Your task to perform on an android device: turn off airplane mode Image 0: 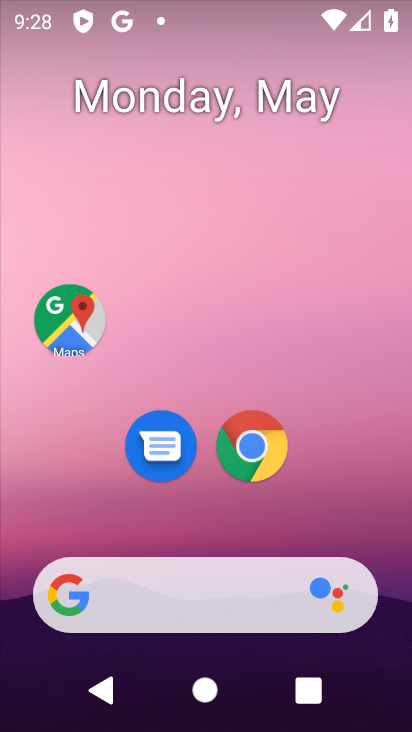
Step 0: drag from (127, 437) to (183, 179)
Your task to perform on an android device: turn off airplane mode Image 1: 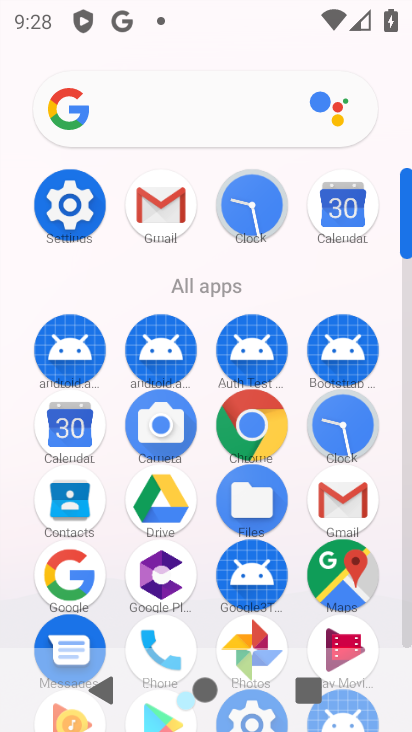
Step 1: drag from (173, 556) to (244, 289)
Your task to perform on an android device: turn off airplane mode Image 2: 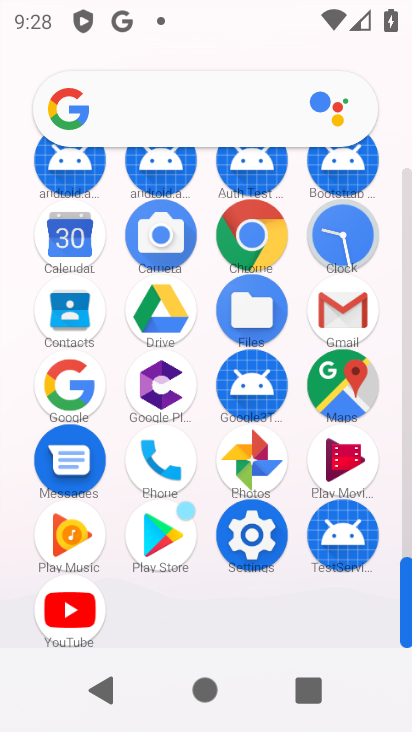
Step 2: click (253, 533)
Your task to perform on an android device: turn off airplane mode Image 3: 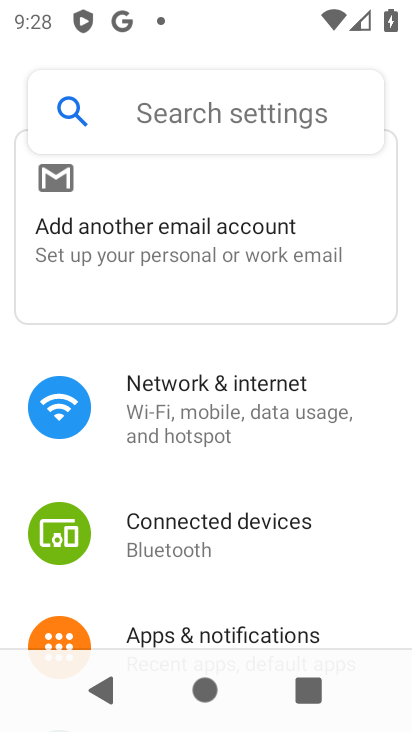
Step 3: click (186, 444)
Your task to perform on an android device: turn off airplane mode Image 4: 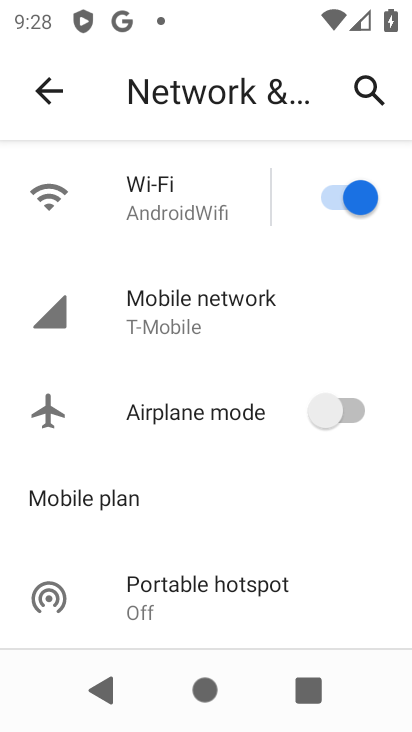
Step 4: task complete